Your task to perform on an android device: change timer sound Image 0: 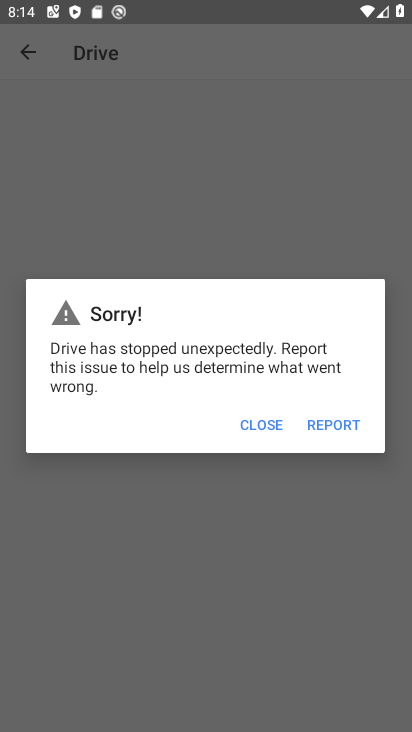
Step 0: press home button
Your task to perform on an android device: change timer sound Image 1: 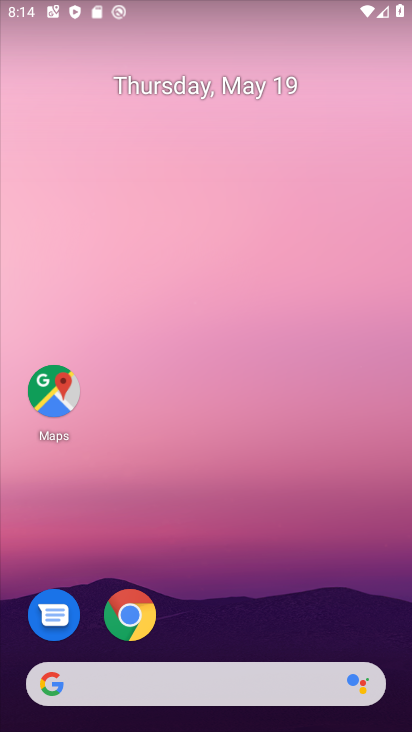
Step 1: drag from (255, 450) to (273, 4)
Your task to perform on an android device: change timer sound Image 2: 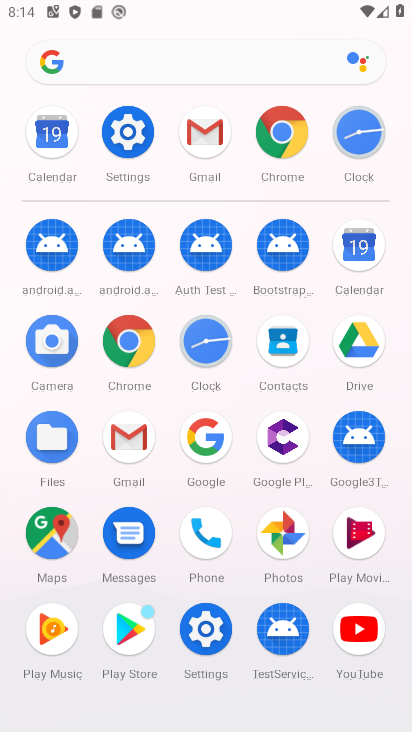
Step 2: click (212, 341)
Your task to perform on an android device: change timer sound Image 3: 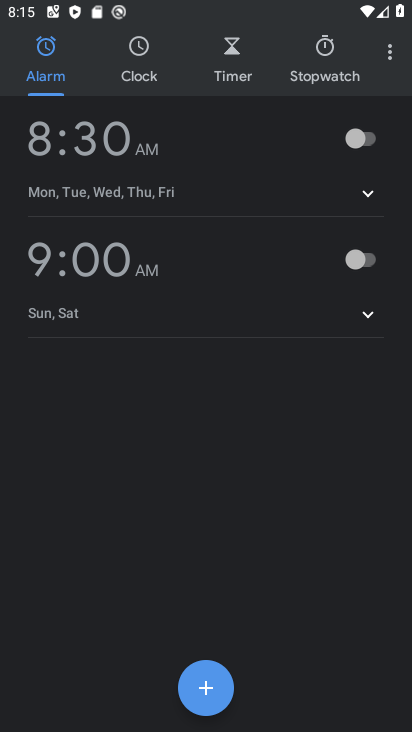
Step 3: click (244, 69)
Your task to perform on an android device: change timer sound Image 4: 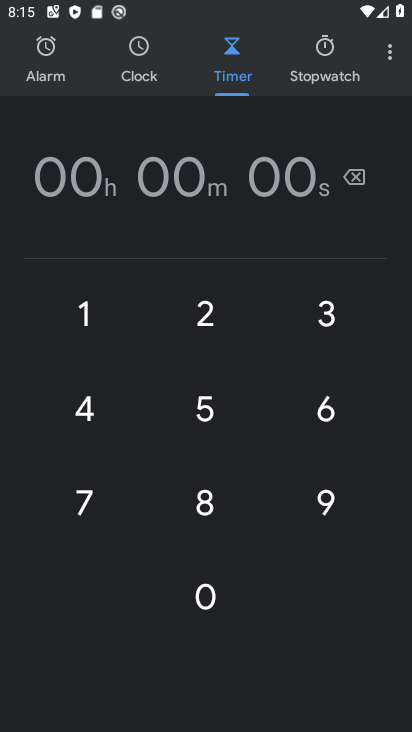
Step 4: click (215, 314)
Your task to perform on an android device: change timer sound Image 5: 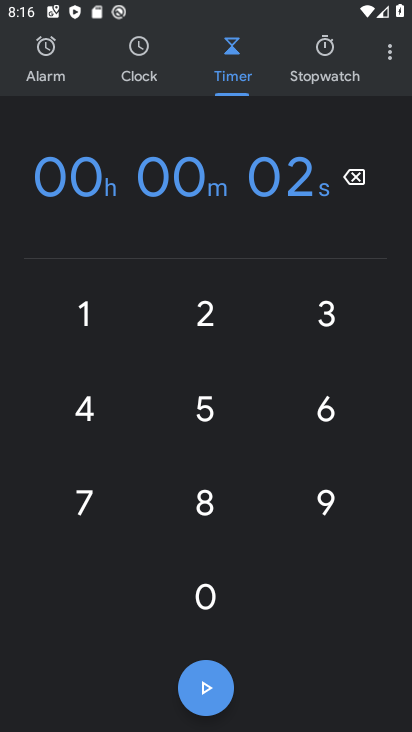
Step 5: click (206, 696)
Your task to perform on an android device: change timer sound Image 6: 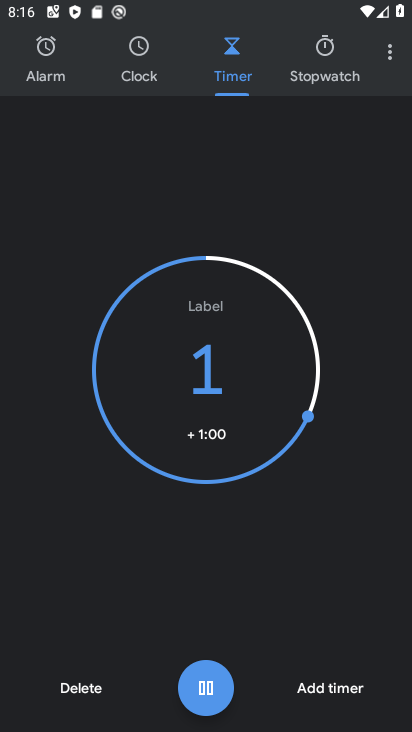
Step 6: task complete